Your task to perform on an android device: change timer sound Image 0: 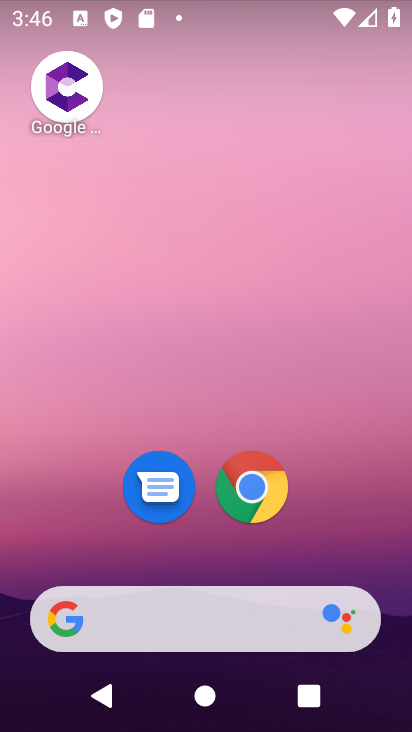
Step 0: drag from (193, 549) to (205, 157)
Your task to perform on an android device: change timer sound Image 1: 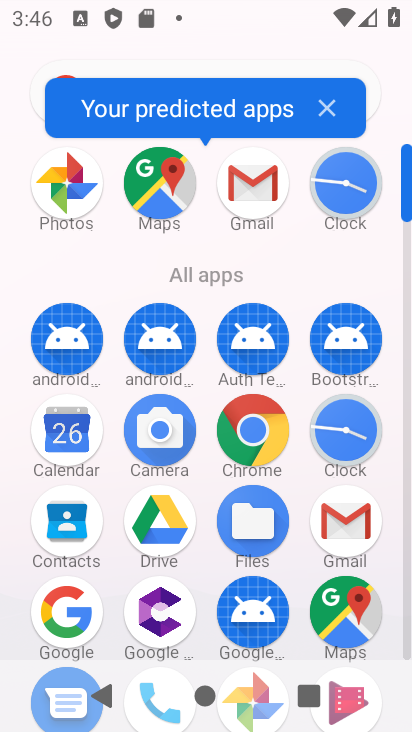
Step 1: click (331, 207)
Your task to perform on an android device: change timer sound Image 2: 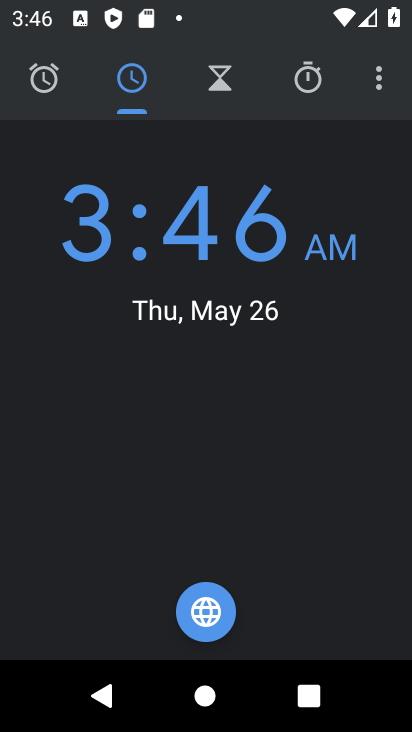
Step 2: click (372, 93)
Your task to perform on an android device: change timer sound Image 3: 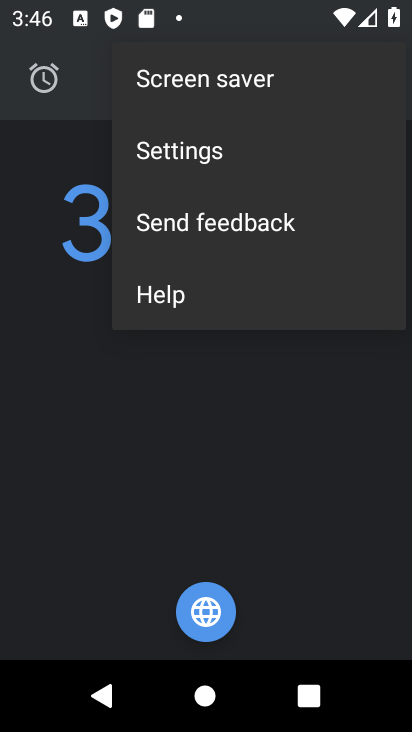
Step 3: click (220, 150)
Your task to perform on an android device: change timer sound Image 4: 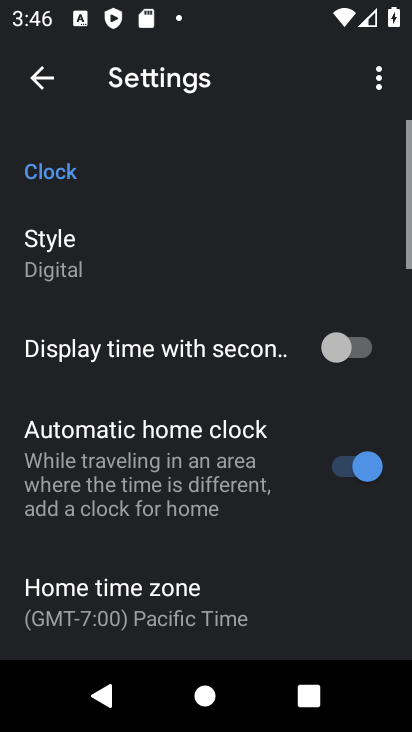
Step 4: drag from (226, 599) to (210, 158)
Your task to perform on an android device: change timer sound Image 5: 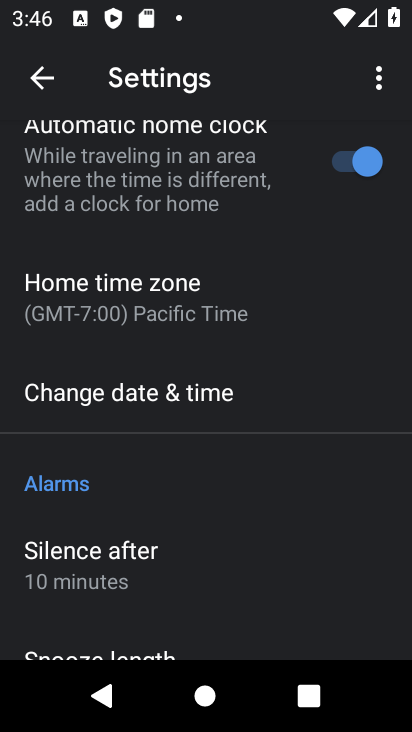
Step 5: drag from (184, 537) to (239, 272)
Your task to perform on an android device: change timer sound Image 6: 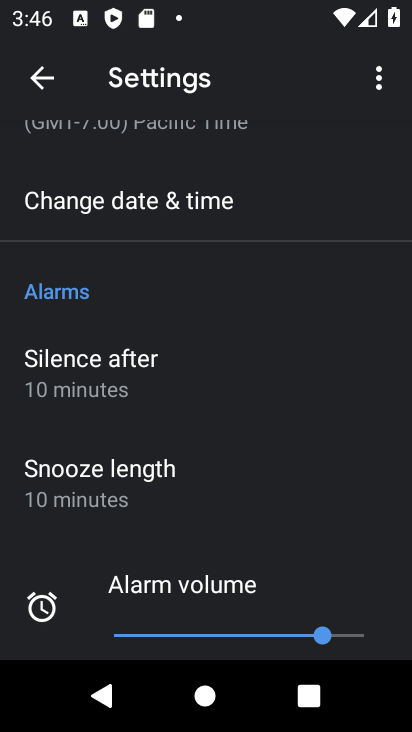
Step 6: drag from (236, 522) to (265, 218)
Your task to perform on an android device: change timer sound Image 7: 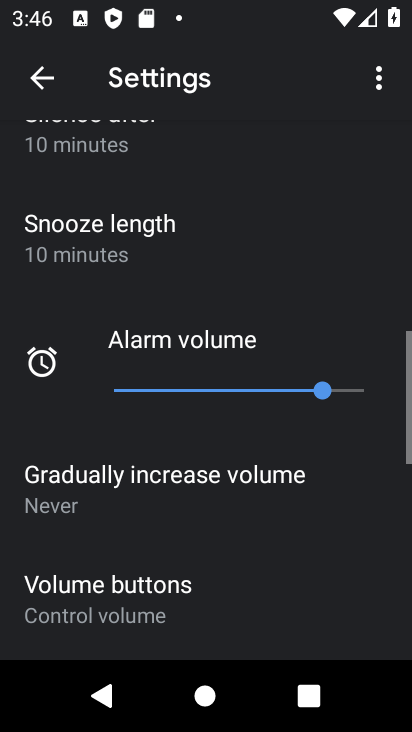
Step 7: drag from (237, 563) to (208, 264)
Your task to perform on an android device: change timer sound Image 8: 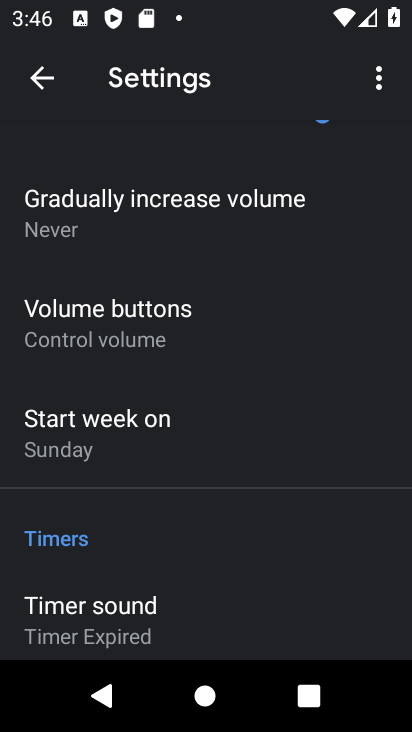
Step 8: click (231, 593)
Your task to perform on an android device: change timer sound Image 9: 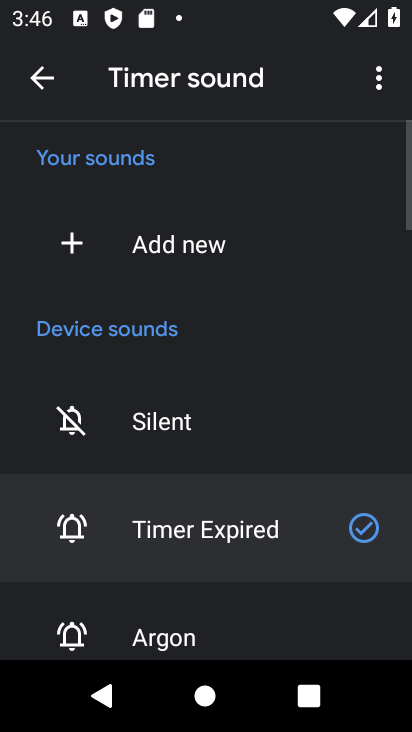
Step 9: click (229, 596)
Your task to perform on an android device: change timer sound Image 10: 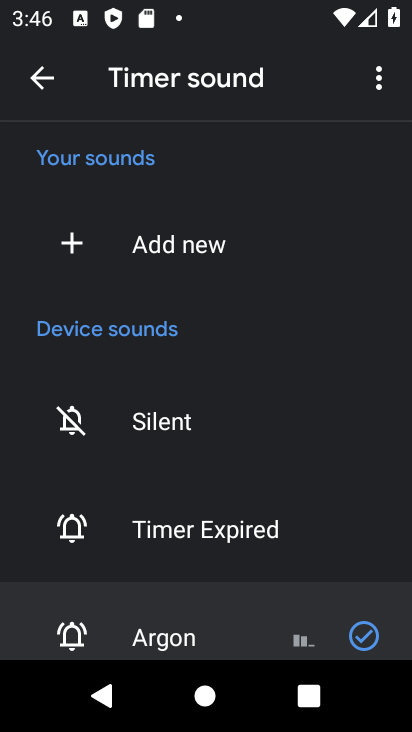
Step 10: task complete